Your task to perform on an android device: see sites visited before in the chrome app Image 0: 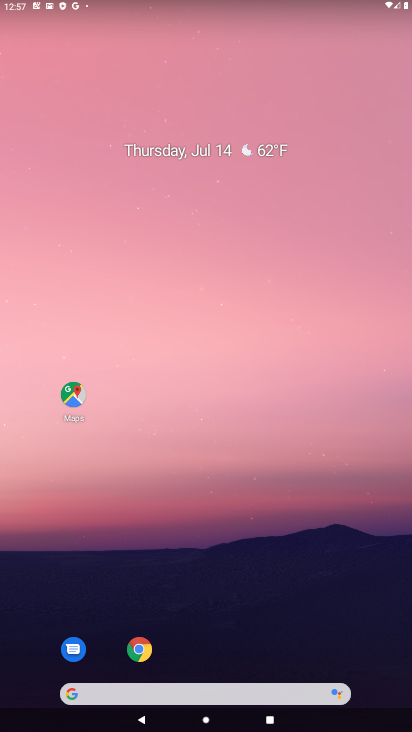
Step 0: drag from (375, 693) to (311, 21)
Your task to perform on an android device: see sites visited before in the chrome app Image 1: 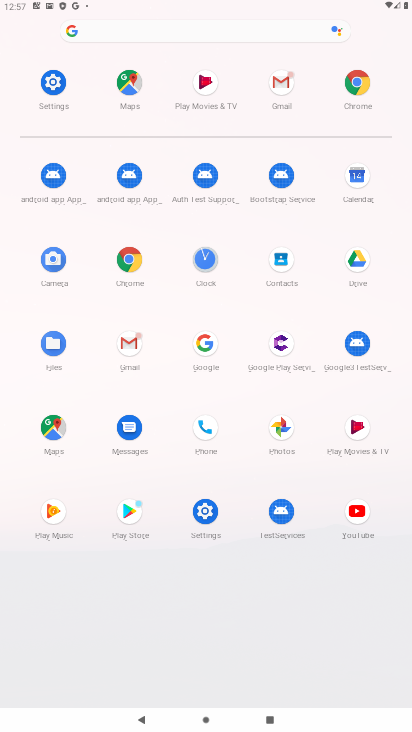
Step 1: click (357, 76)
Your task to perform on an android device: see sites visited before in the chrome app Image 2: 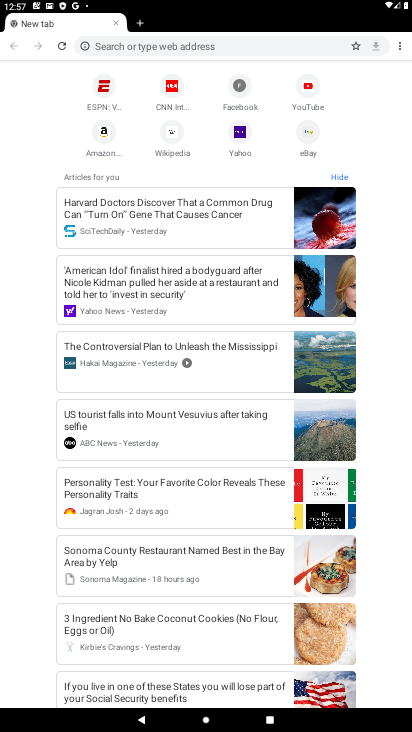
Step 2: task complete